Your task to perform on an android device: Search for Mexican restaurants on Maps Image 0: 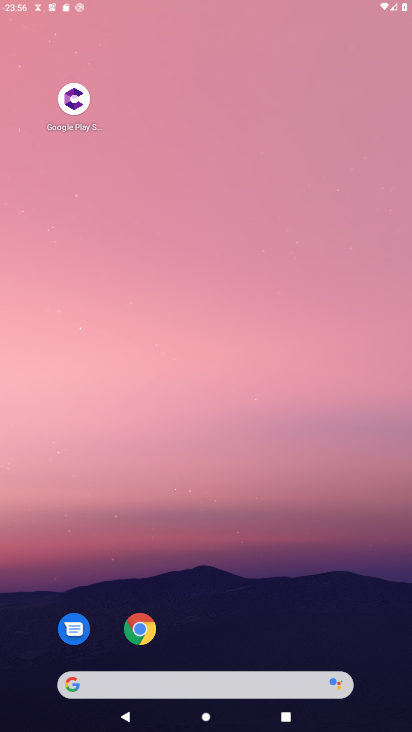
Step 0: drag from (219, 619) to (214, 158)
Your task to perform on an android device: Search for Mexican restaurants on Maps Image 1: 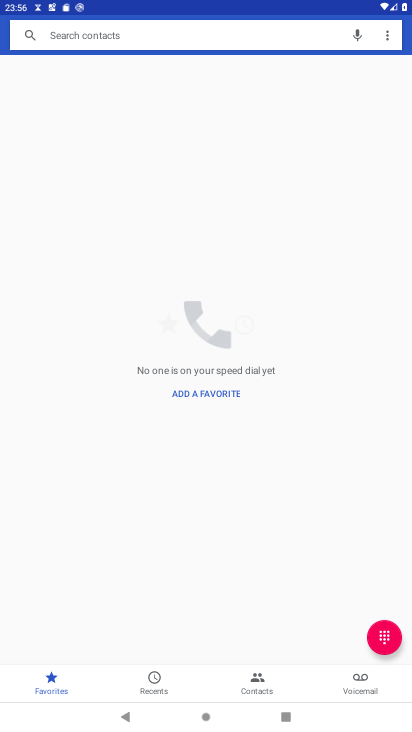
Step 1: press home button
Your task to perform on an android device: Search for Mexican restaurants on Maps Image 2: 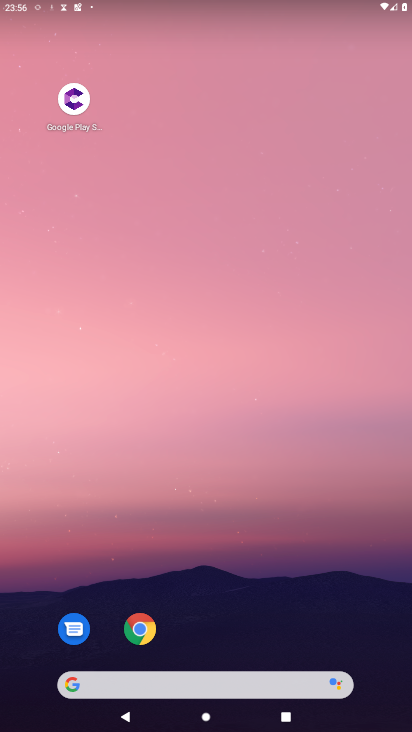
Step 2: drag from (232, 591) to (237, 161)
Your task to perform on an android device: Search for Mexican restaurants on Maps Image 3: 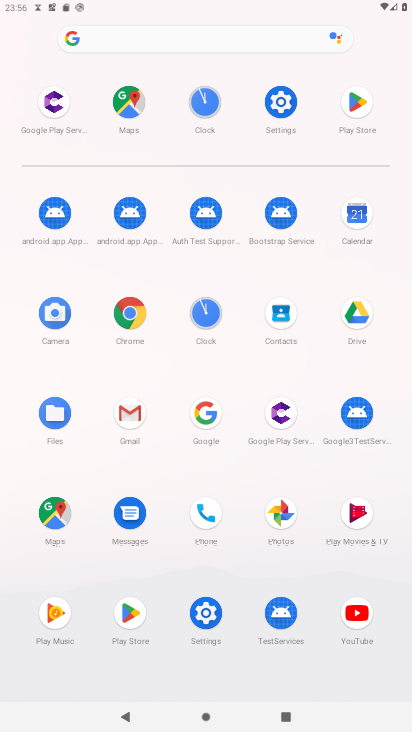
Step 3: click (136, 98)
Your task to perform on an android device: Search for Mexican restaurants on Maps Image 4: 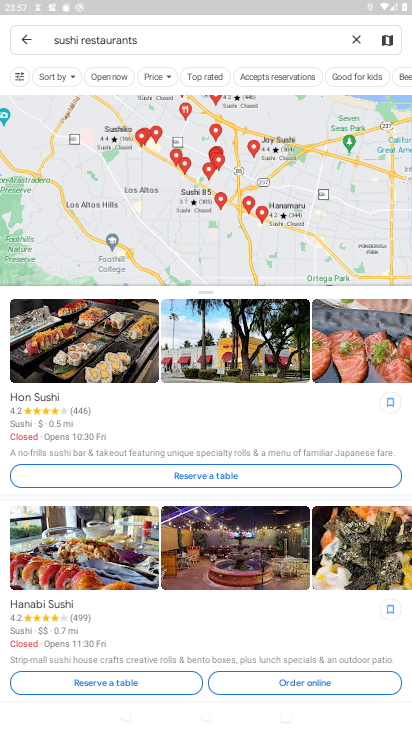
Step 4: click (358, 40)
Your task to perform on an android device: Search for Mexican restaurants on Maps Image 5: 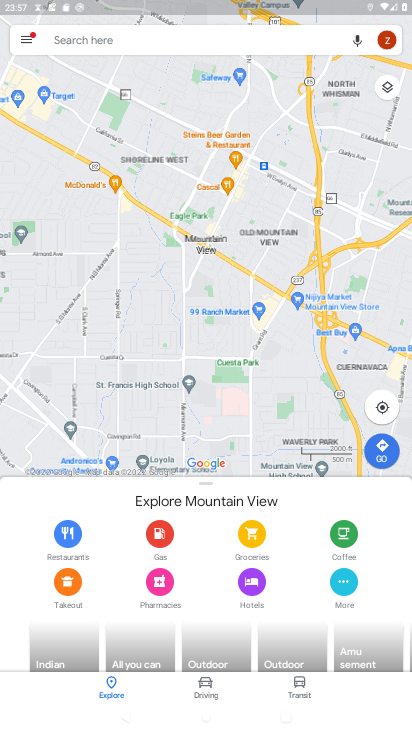
Step 5: click (165, 41)
Your task to perform on an android device: Search for Mexican restaurants on Maps Image 6: 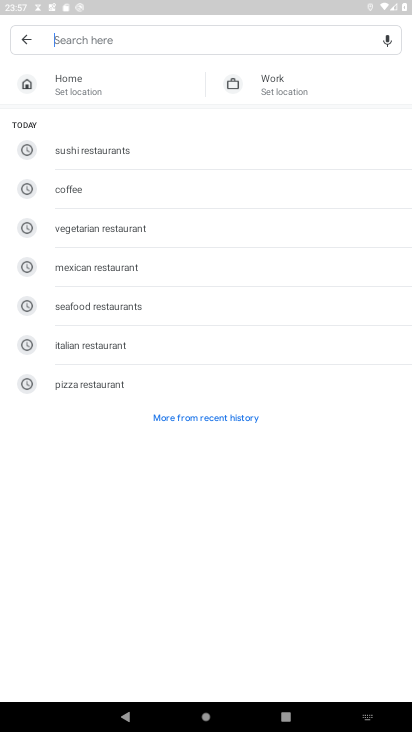
Step 6: click (126, 265)
Your task to perform on an android device: Search for Mexican restaurants on Maps Image 7: 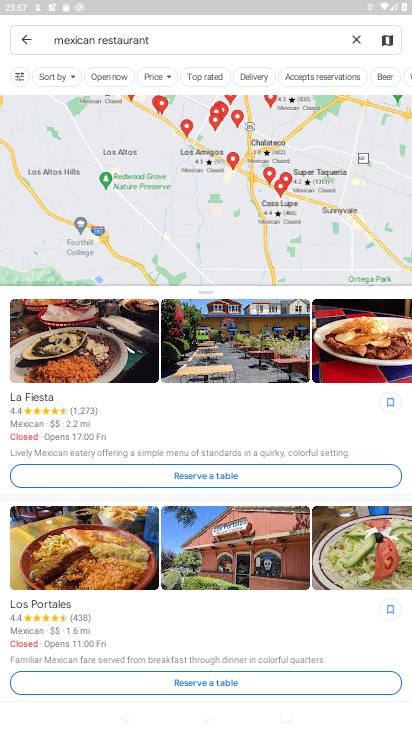
Step 7: task complete